Your task to perform on an android device: Open sound settings Image 0: 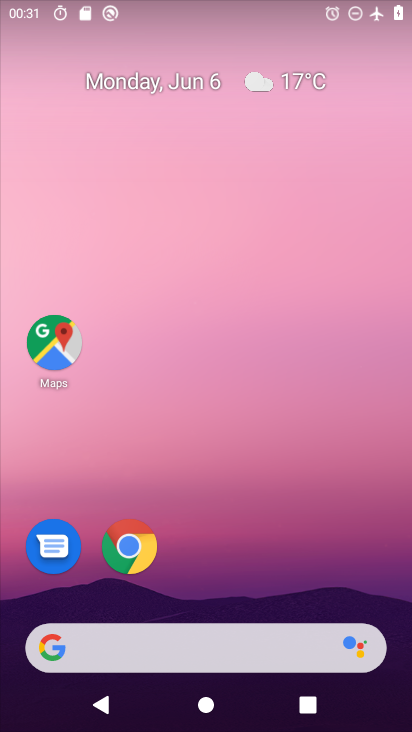
Step 0: drag from (162, 580) to (375, 3)
Your task to perform on an android device: Open sound settings Image 1: 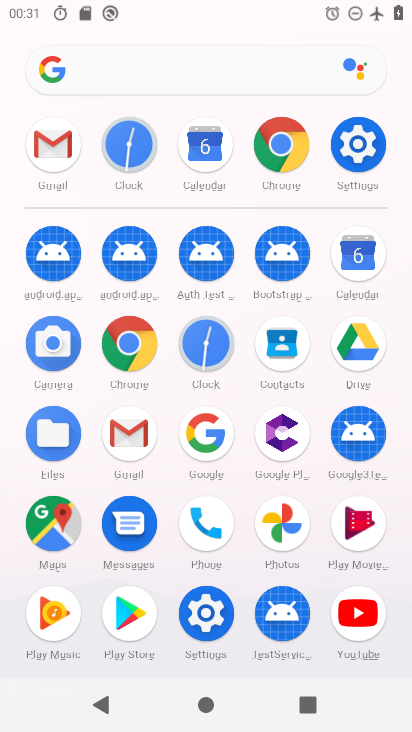
Step 1: click (206, 605)
Your task to perform on an android device: Open sound settings Image 2: 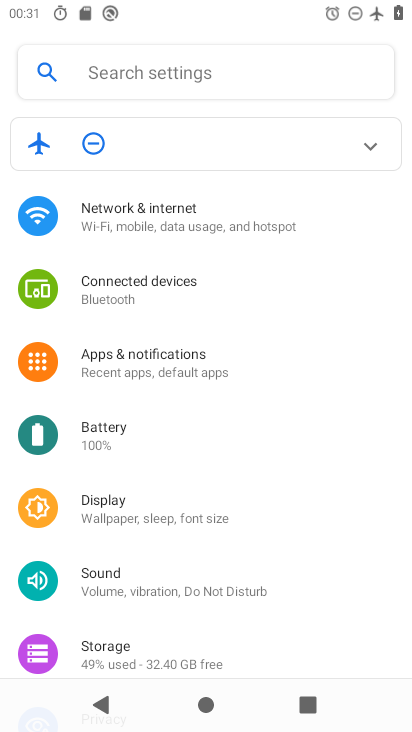
Step 2: click (174, 580)
Your task to perform on an android device: Open sound settings Image 3: 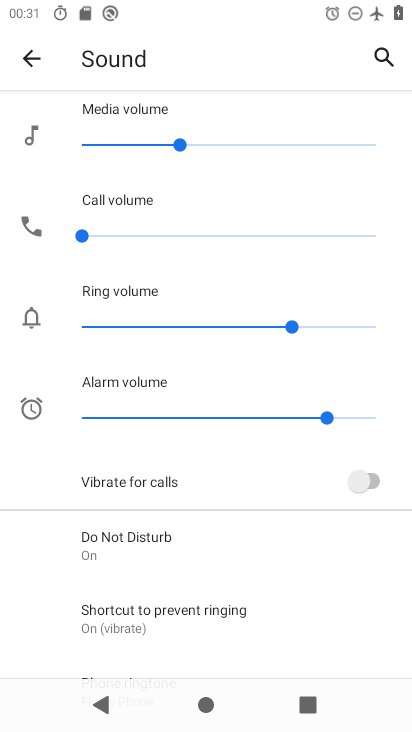
Step 3: task complete